Your task to perform on an android device: Open the map Image 0: 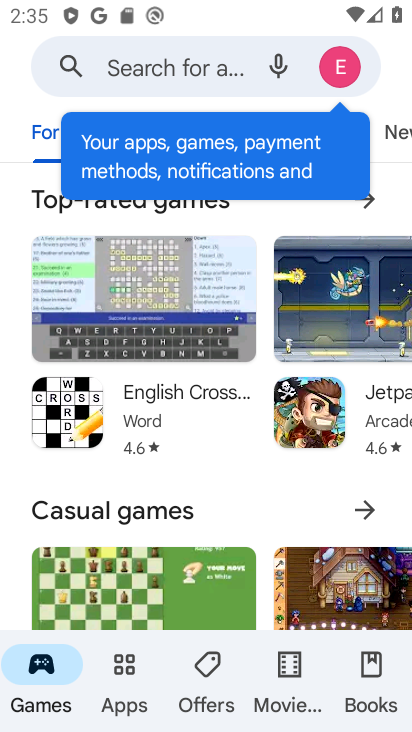
Step 0: press home button
Your task to perform on an android device: Open the map Image 1: 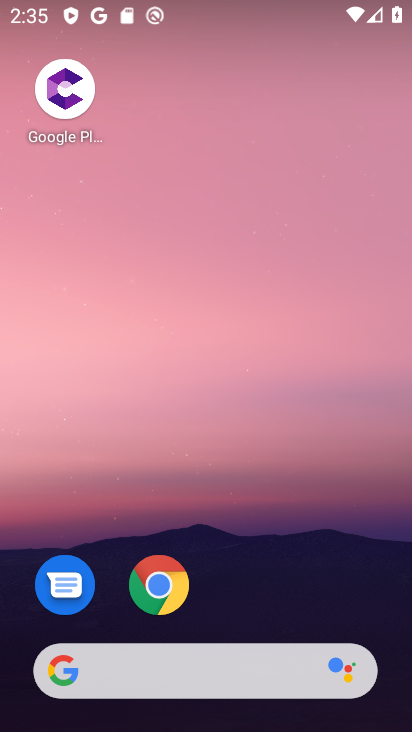
Step 1: drag from (267, 563) to (334, 42)
Your task to perform on an android device: Open the map Image 2: 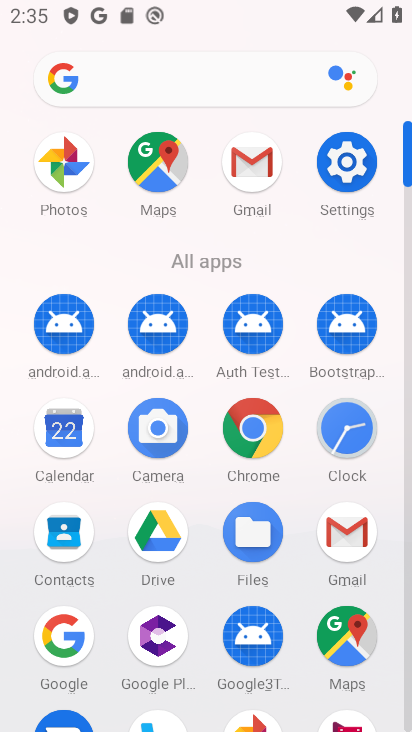
Step 2: click (162, 166)
Your task to perform on an android device: Open the map Image 3: 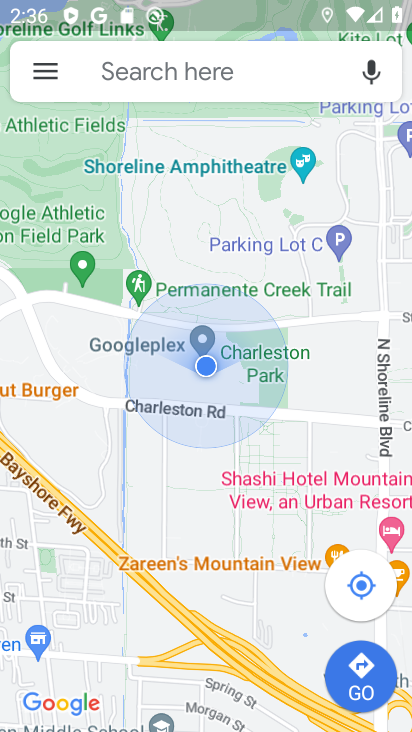
Step 3: task complete